Your task to perform on an android device: show emergency info Image 0: 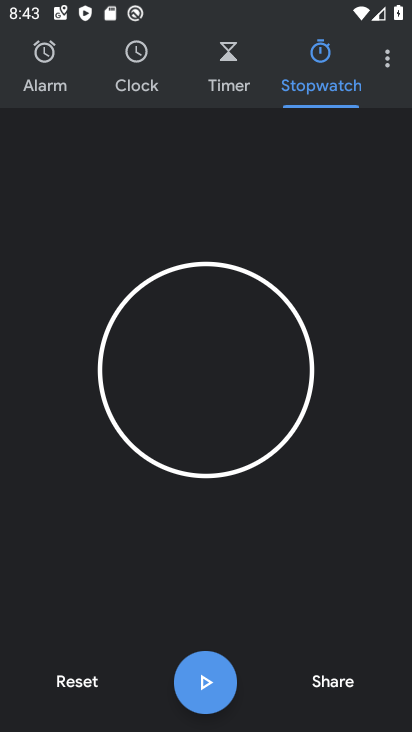
Step 0: press back button
Your task to perform on an android device: show emergency info Image 1: 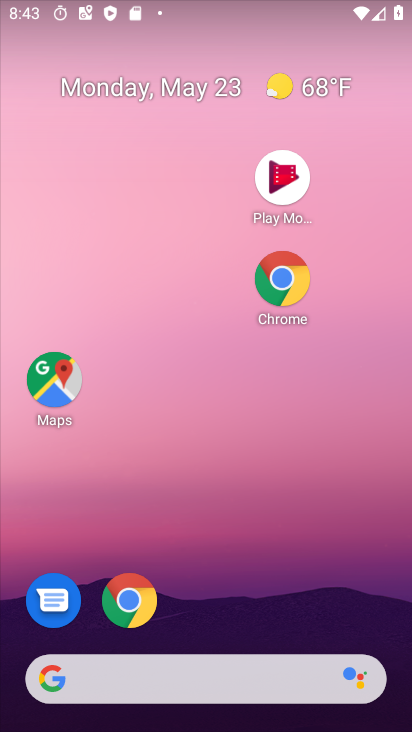
Step 1: drag from (294, 692) to (188, 121)
Your task to perform on an android device: show emergency info Image 2: 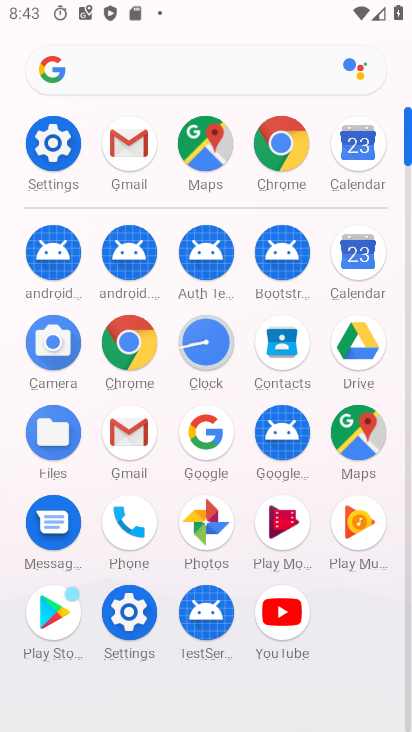
Step 2: click (56, 146)
Your task to perform on an android device: show emergency info Image 3: 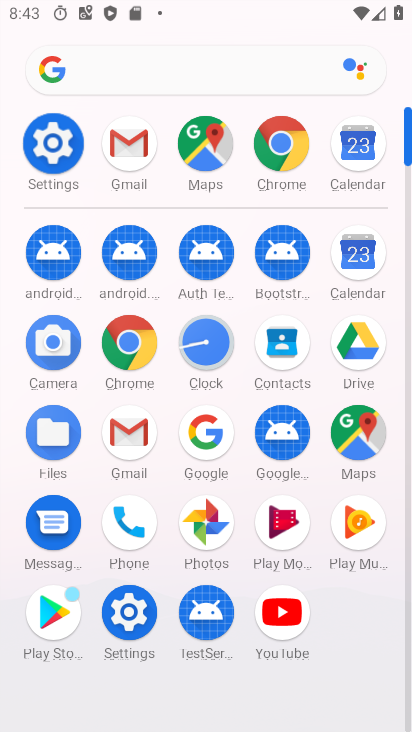
Step 3: click (58, 148)
Your task to perform on an android device: show emergency info Image 4: 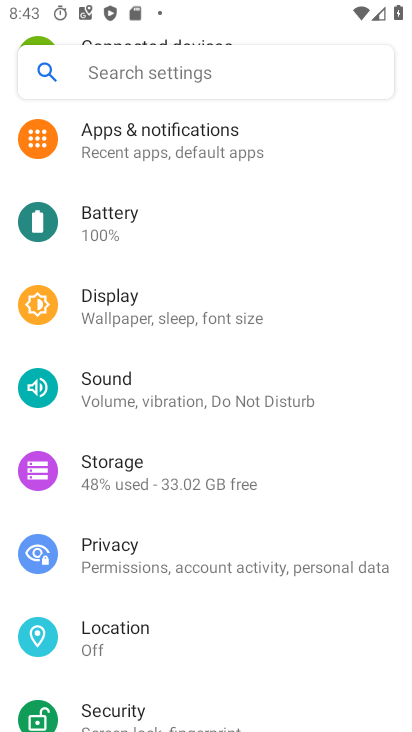
Step 4: click (60, 149)
Your task to perform on an android device: show emergency info Image 5: 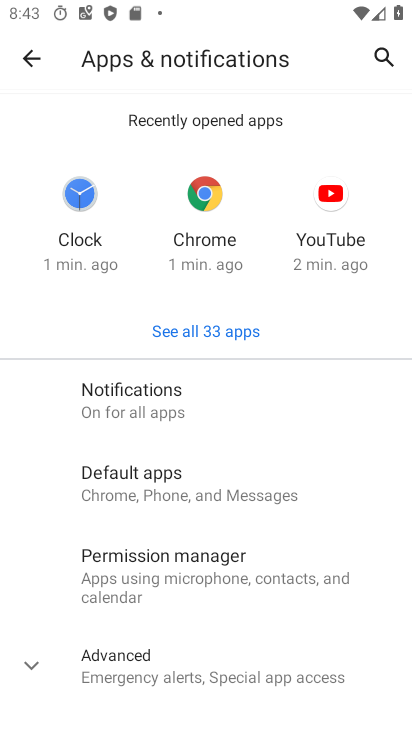
Step 5: click (26, 57)
Your task to perform on an android device: show emergency info Image 6: 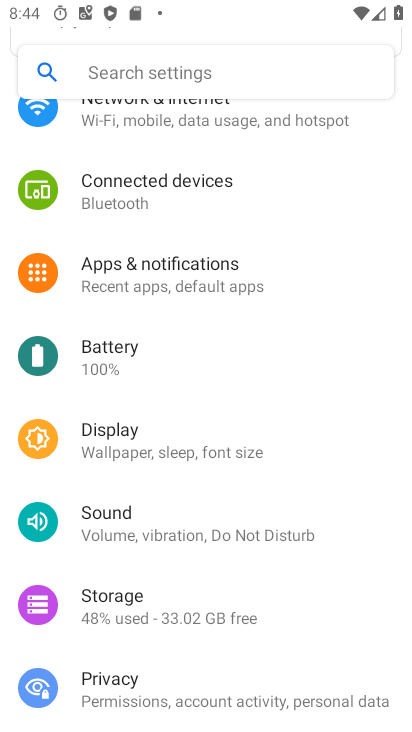
Step 6: drag from (152, 549) to (121, 154)
Your task to perform on an android device: show emergency info Image 7: 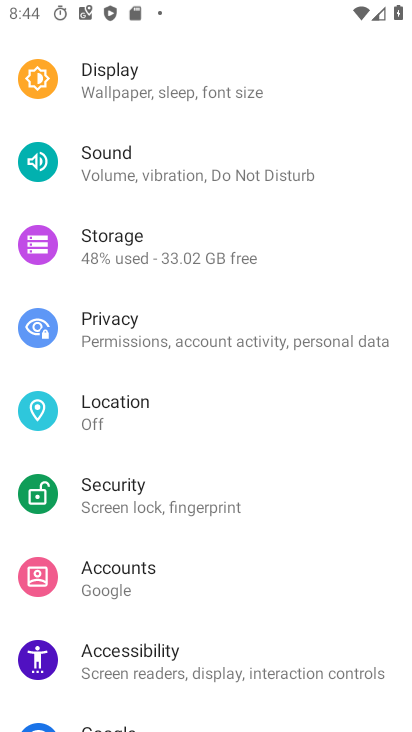
Step 7: drag from (202, 514) to (193, 152)
Your task to perform on an android device: show emergency info Image 8: 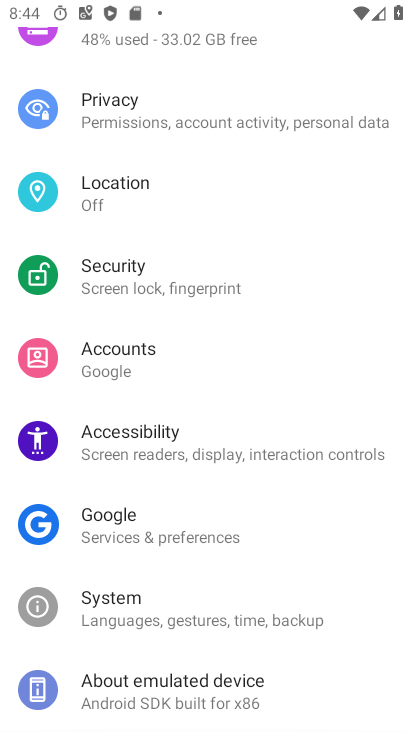
Step 8: drag from (193, 507) to (193, 47)
Your task to perform on an android device: show emergency info Image 9: 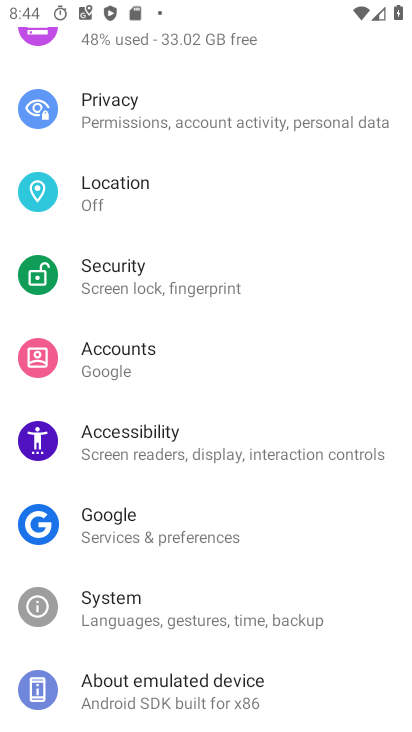
Step 9: click (148, 694)
Your task to perform on an android device: show emergency info Image 10: 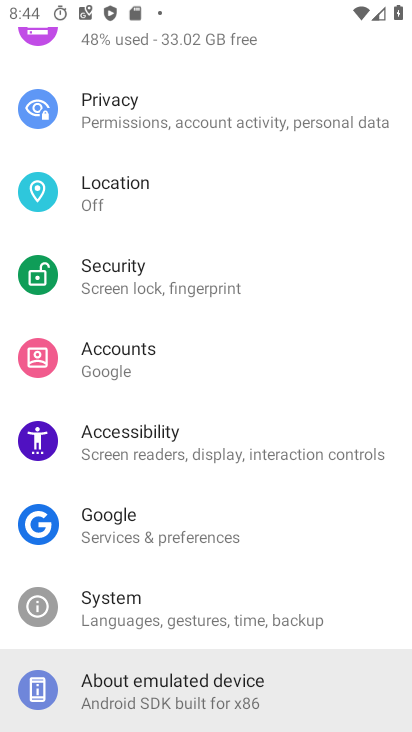
Step 10: click (148, 694)
Your task to perform on an android device: show emergency info Image 11: 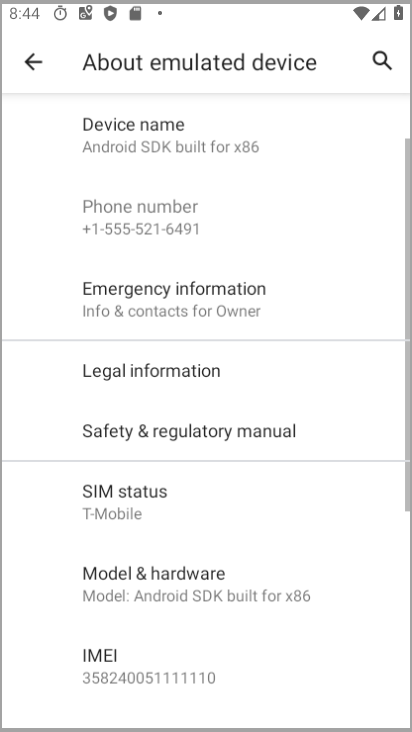
Step 11: click (148, 694)
Your task to perform on an android device: show emergency info Image 12: 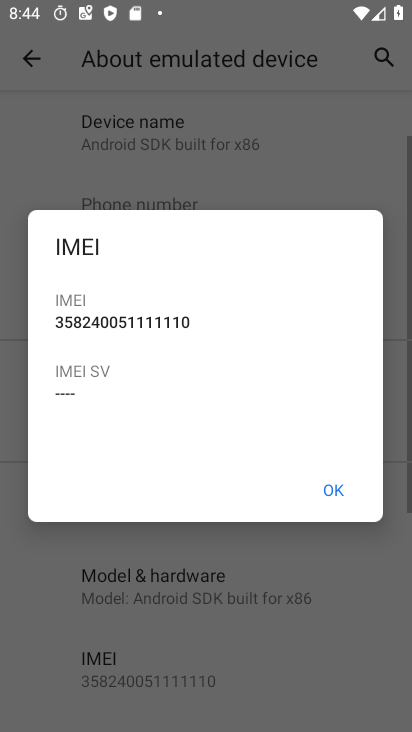
Step 12: click (336, 493)
Your task to perform on an android device: show emergency info Image 13: 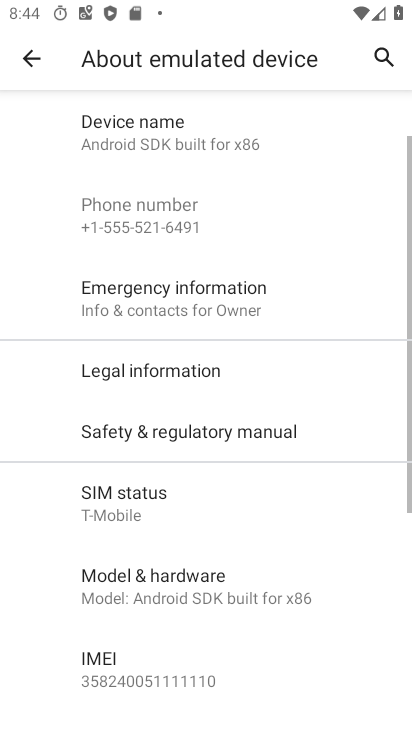
Step 13: task complete